Your task to perform on an android device: open the mobile data screen to see how much data has been used Image 0: 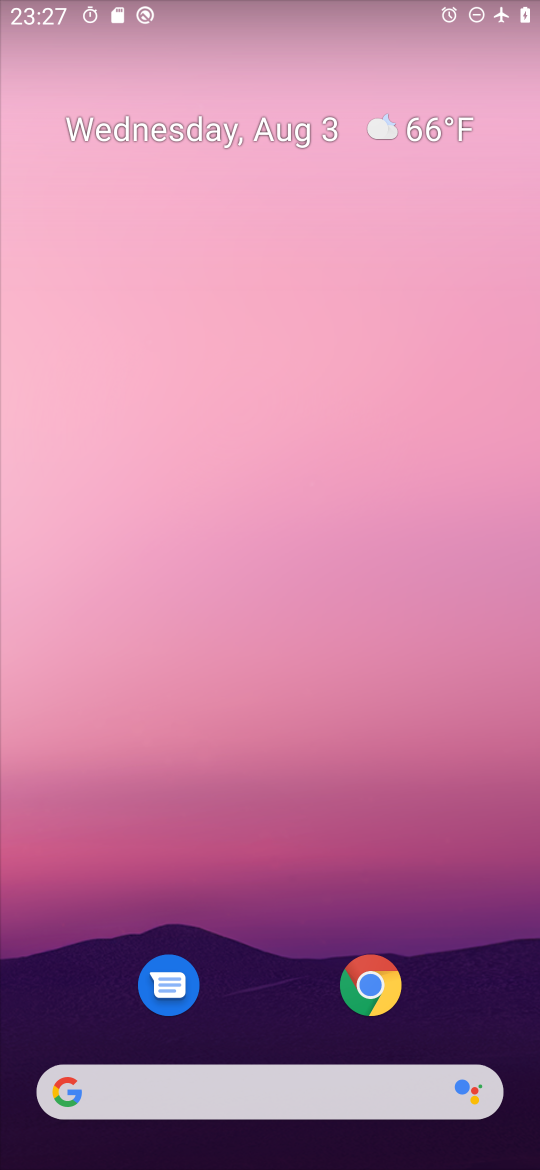
Step 0: drag from (276, 959) to (257, 339)
Your task to perform on an android device: open the mobile data screen to see how much data has been used Image 1: 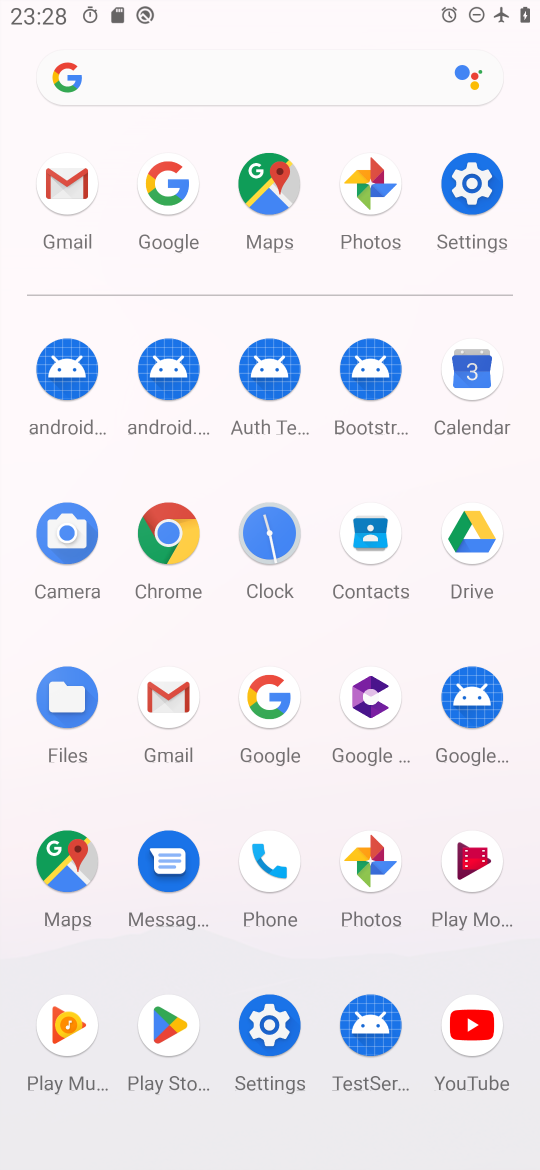
Step 1: click (446, 185)
Your task to perform on an android device: open the mobile data screen to see how much data has been used Image 2: 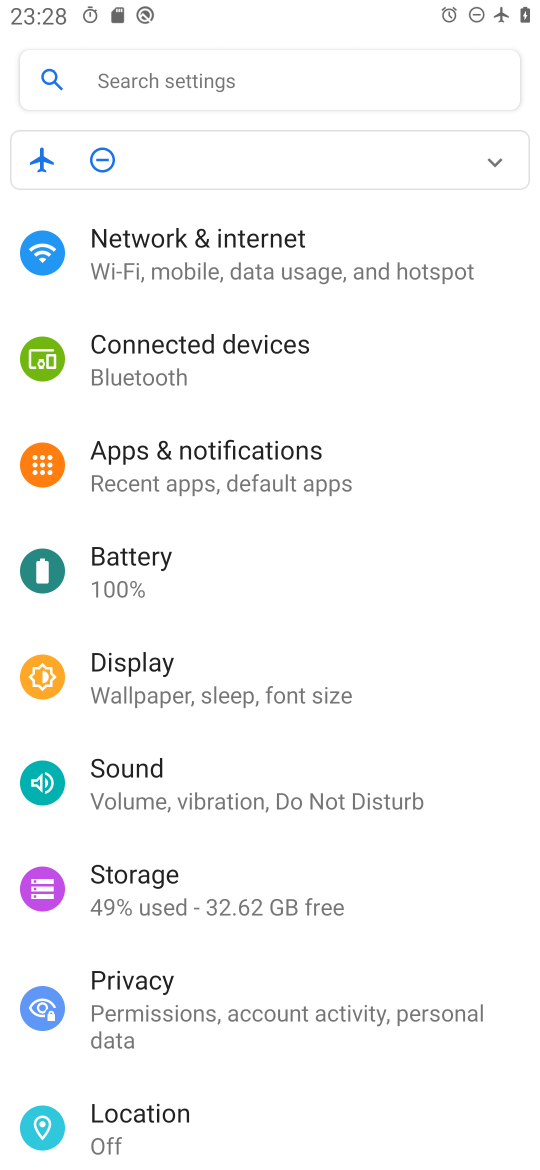
Step 2: click (202, 254)
Your task to perform on an android device: open the mobile data screen to see how much data has been used Image 3: 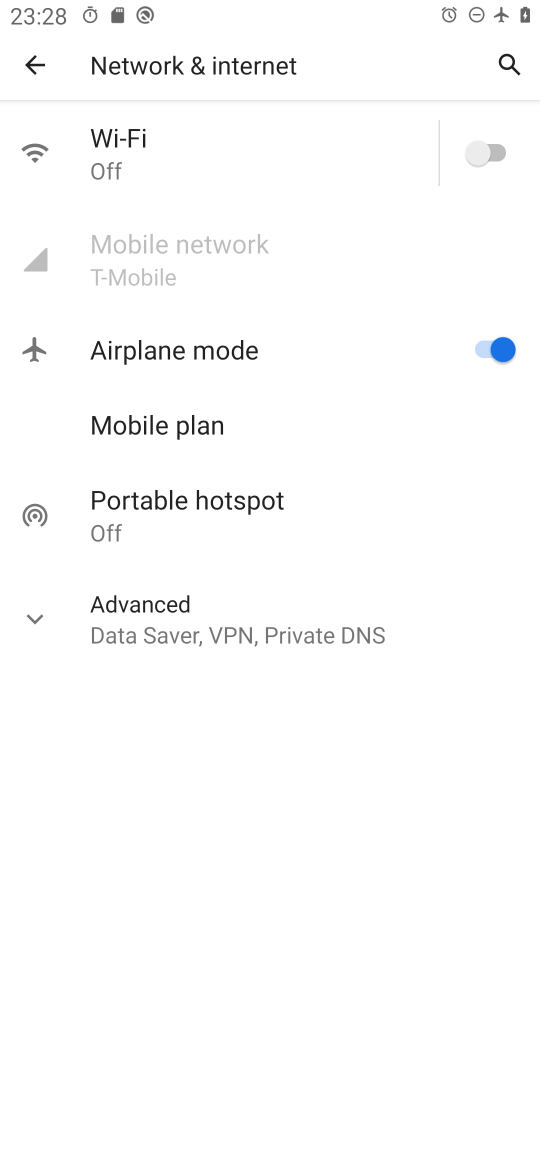
Step 3: click (227, 262)
Your task to perform on an android device: open the mobile data screen to see how much data has been used Image 4: 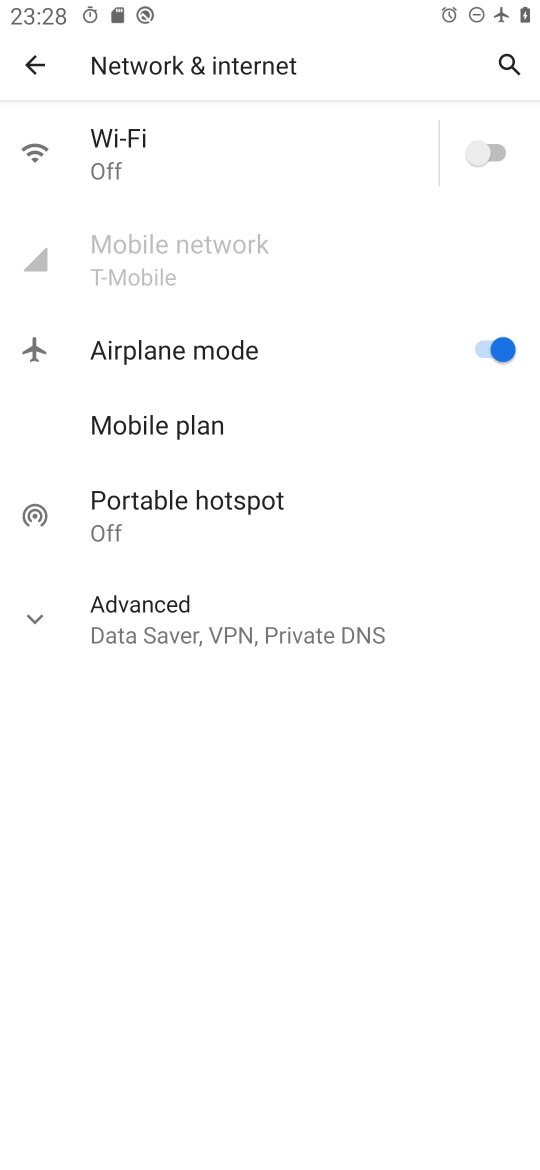
Step 4: task complete